Your task to perform on an android device: turn on location history Image 0: 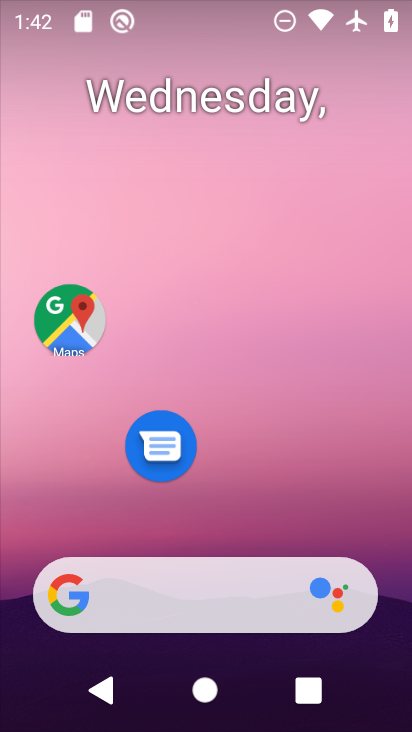
Step 0: drag from (342, 496) to (266, 272)
Your task to perform on an android device: turn on location history Image 1: 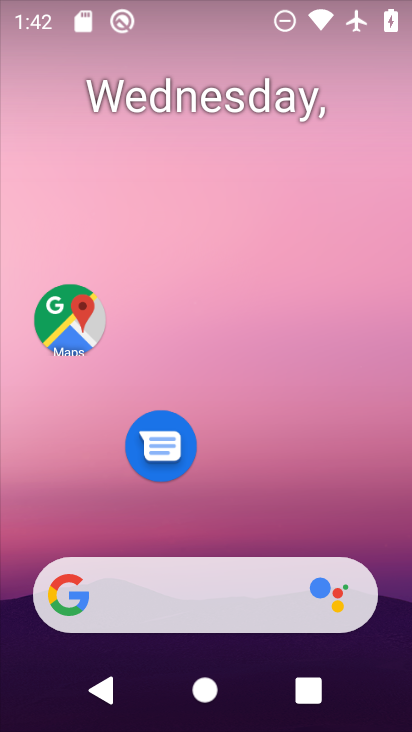
Step 1: drag from (224, 516) to (186, 66)
Your task to perform on an android device: turn on location history Image 2: 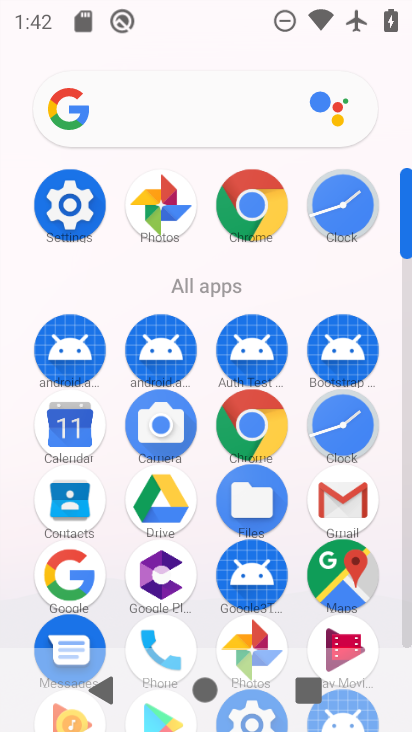
Step 2: click (77, 229)
Your task to perform on an android device: turn on location history Image 3: 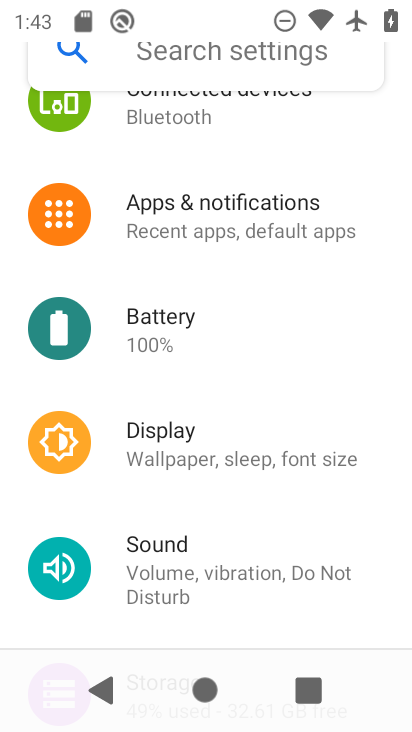
Step 3: drag from (199, 354) to (399, 625)
Your task to perform on an android device: turn on location history Image 4: 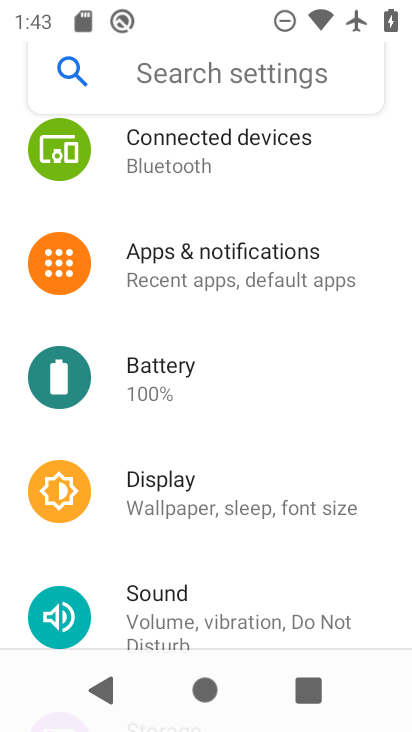
Step 4: drag from (266, 335) to (240, 545)
Your task to perform on an android device: turn on location history Image 5: 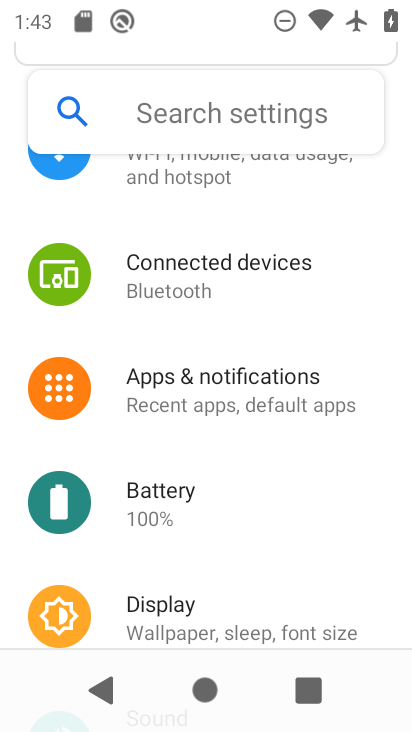
Step 5: drag from (240, 543) to (218, 154)
Your task to perform on an android device: turn on location history Image 6: 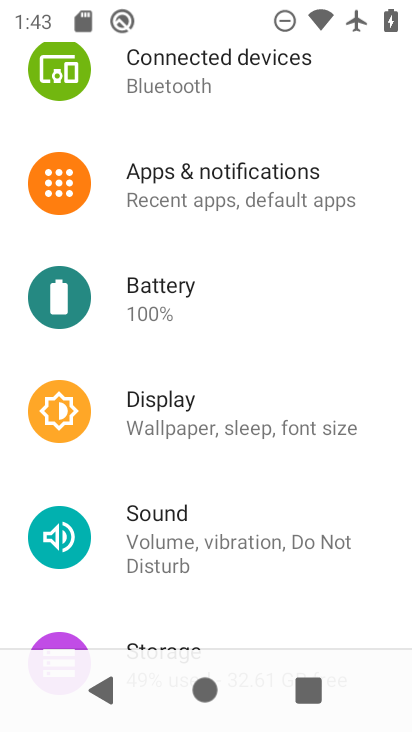
Step 6: drag from (210, 488) to (213, 300)
Your task to perform on an android device: turn on location history Image 7: 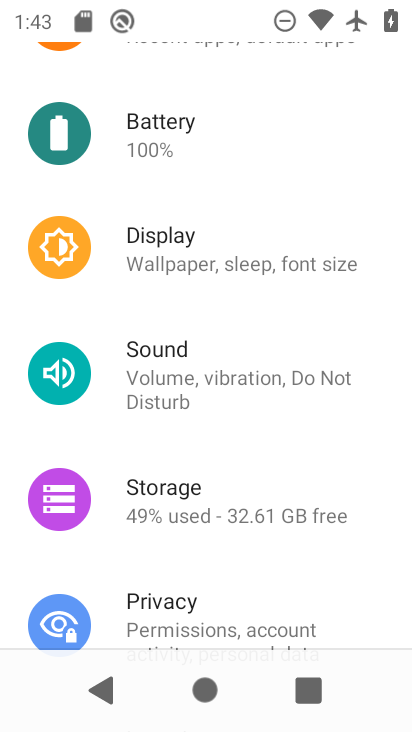
Step 7: drag from (208, 209) to (214, 536)
Your task to perform on an android device: turn on location history Image 8: 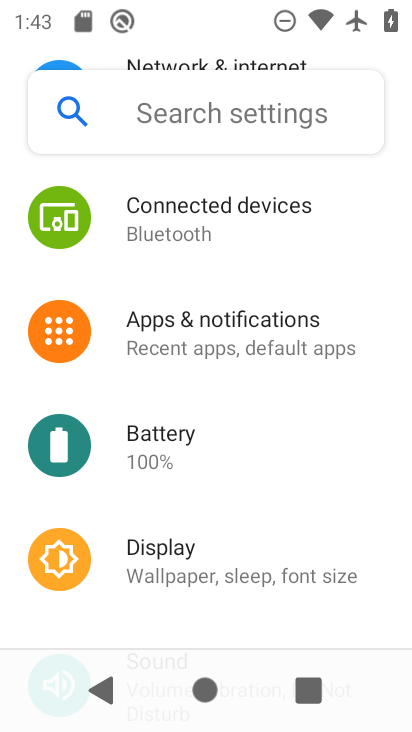
Step 8: drag from (210, 192) to (202, 569)
Your task to perform on an android device: turn on location history Image 9: 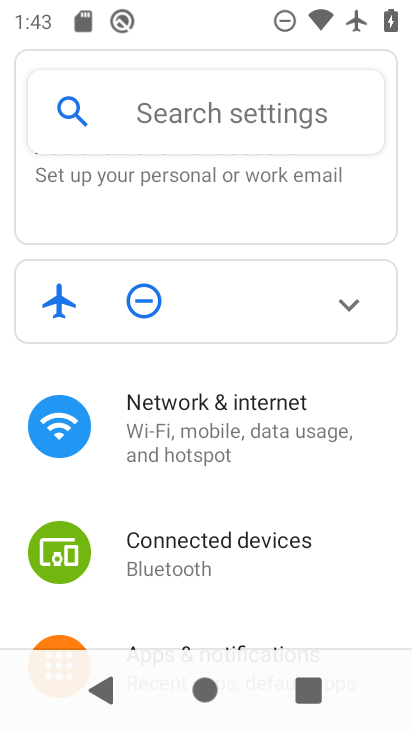
Step 9: drag from (202, 569) to (212, 240)
Your task to perform on an android device: turn on location history Image 10: 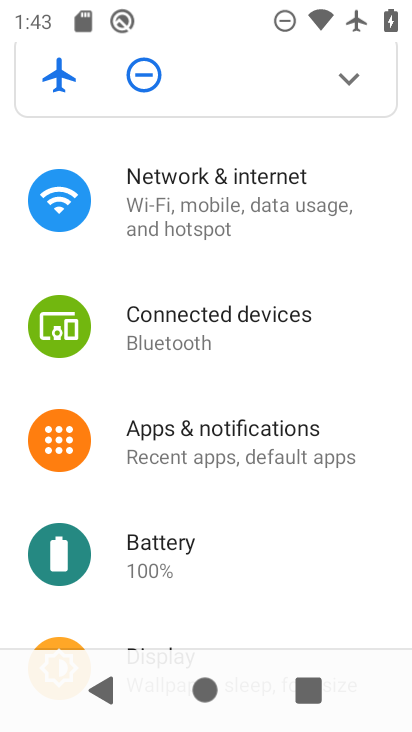
Step 10: drag from (255, 604) to (250, 254)
Your task to perform on an android device: turn on location history Image 11: 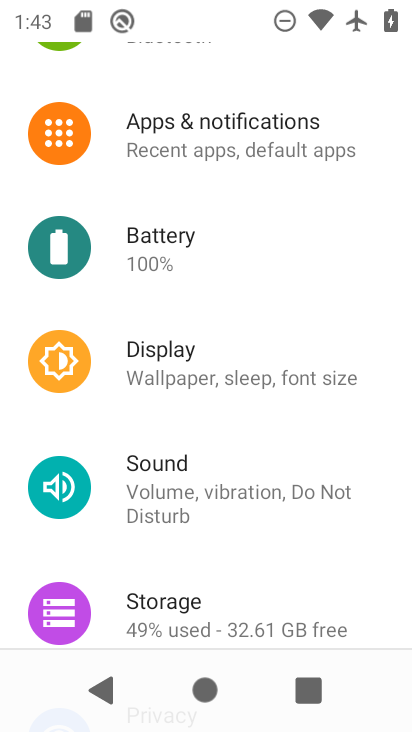
Step 11: drag from (270, 537) to (270, 212)
Your task to perform on an android device: turn on location history Image 12: 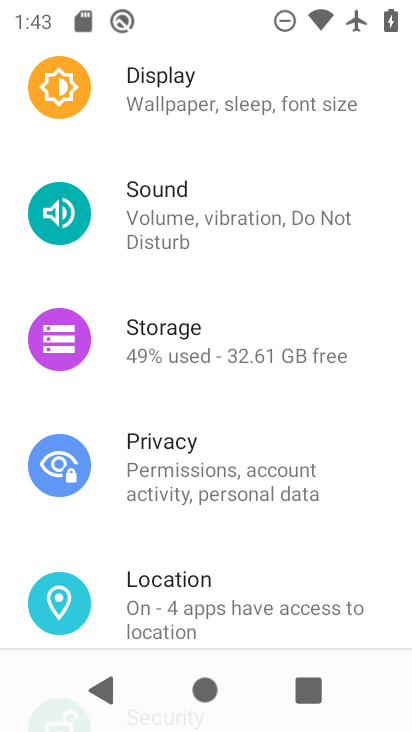
Step 12: click (260, 591)
Your task to perform on an android device: turn on location history Image 13: 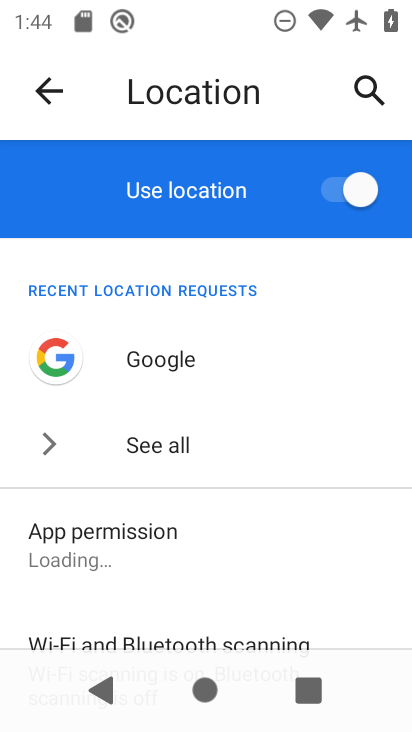
Step 13: drag from (260, 591) to (257, 276)
Your task to perform on an android device: turn on location history Image 14: 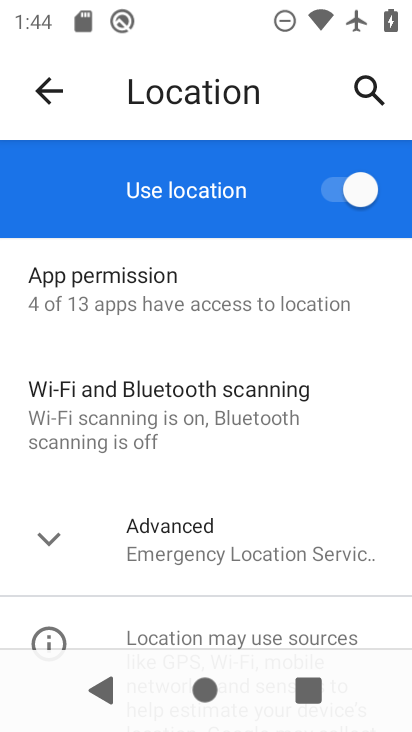
Step 14: click (287, 565)
Your task to perform on an android device: turn on location history Image 15: 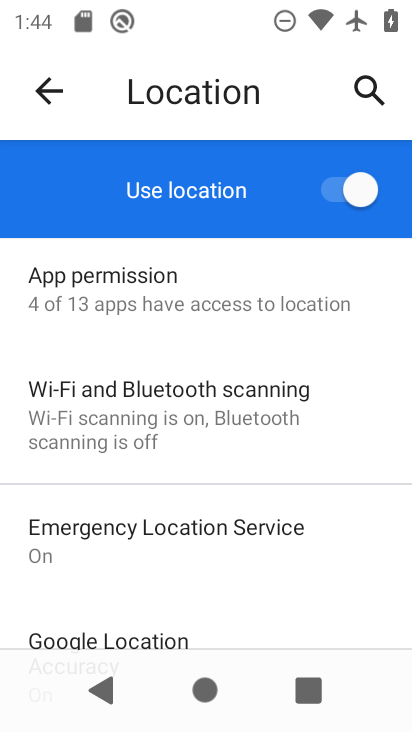
Step 15: drag from (281, 563) to (308, 320)
Your task to perform on an android device: turn on location history Image 16: 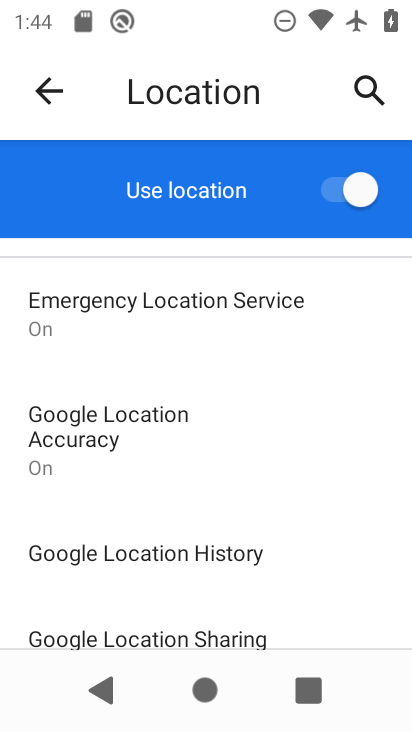
Step 16: click (261, 561)
Your task to perform on an android device: turn on location history Image 17: 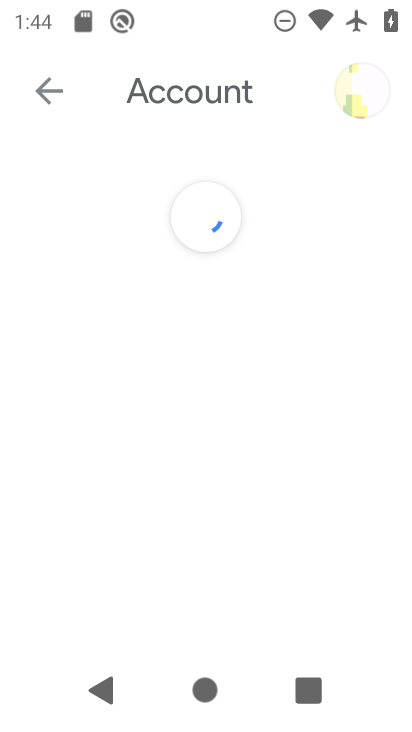
Step 17: task complete